Your task to perform on an android device: turn pop-ups on in chrome Image 0: 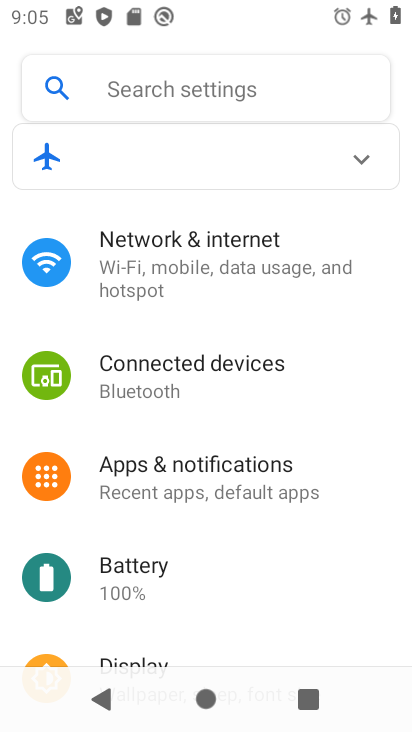
Step 0: press home button
Your task to perform on an android device: turn pop-ups on in chrome Image 1: 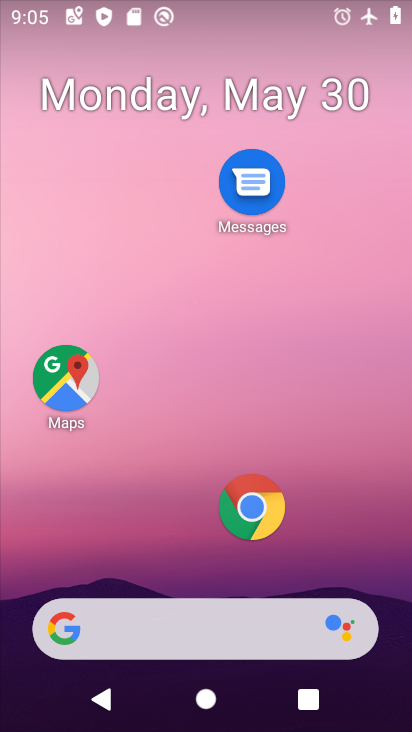
Step 1: click (246, 514)
Your task to perform on an android device: turn pop-ups on in chrome Image 2: 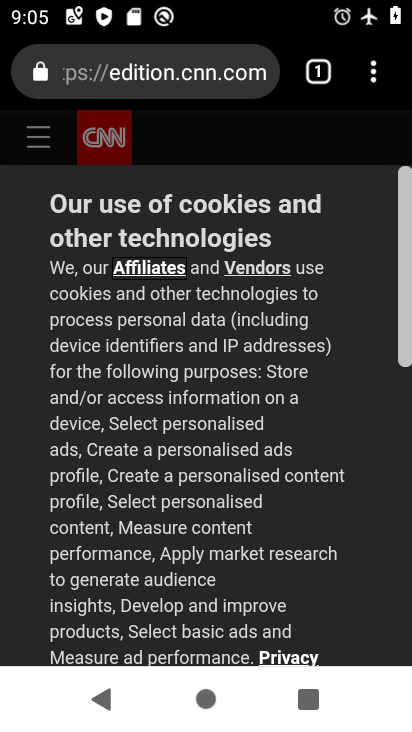
Step 2: click (373, 83)
Your task to perform on an android device: turn pop-ups on in chrome Image 3: 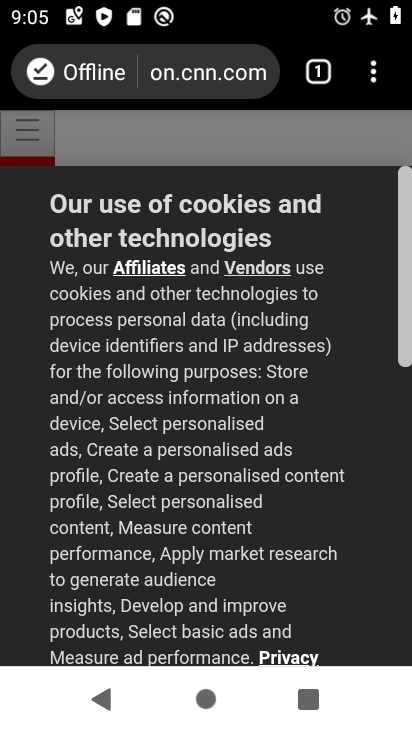
Step 3: click (375, 71)
Your task to perform on an android device: turn pop-ups on in chrome Image 4: 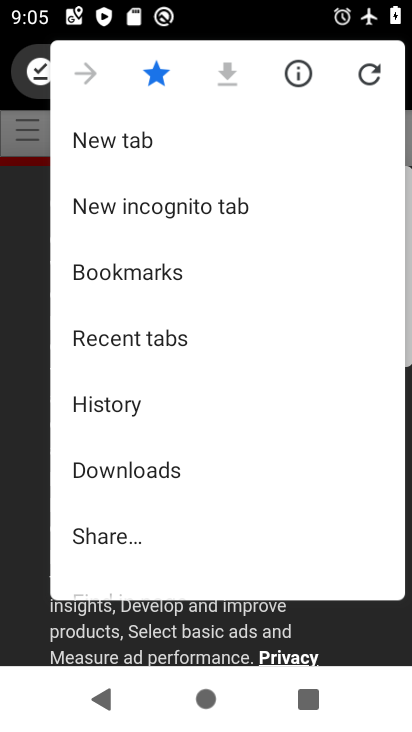
Step 4: drag from (143, 465) to (133, 184)
Your task to perform on an android device: turn pop-ups on in chrome Image 5: 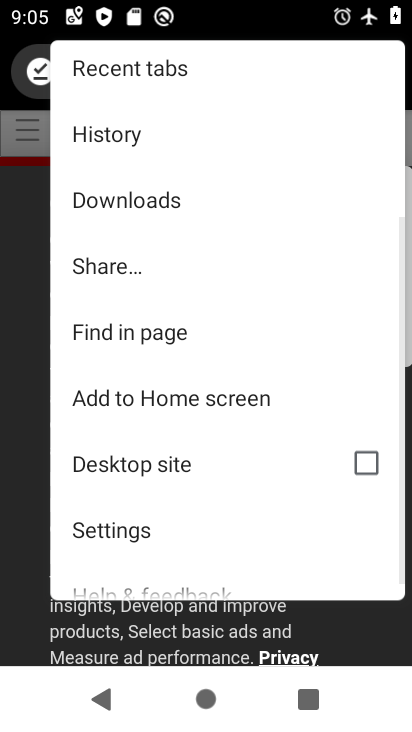
Step 5: click (117, 524)
Your task to perform on an android device: turn pop-ups on in chrome Image 6: 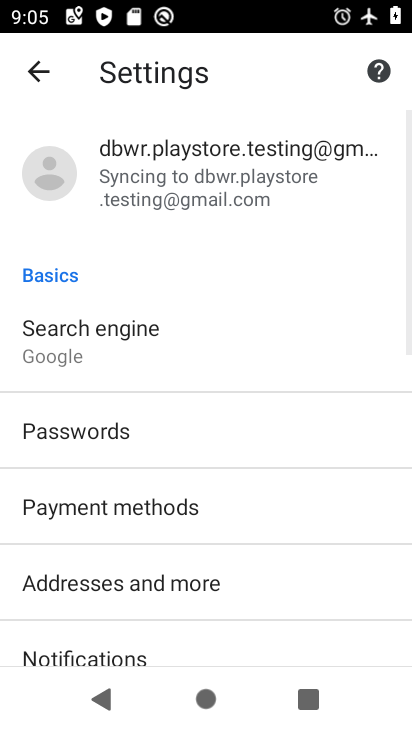
Step 6: drag from (169, 560) to (178, 261)
Your task to perform on an android device: turn pop-ups on in chrome Image 7: 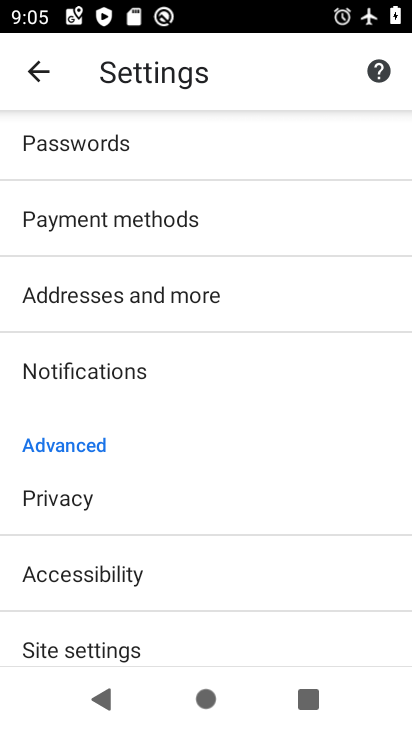
Step 7: drag from (115, 567) to (125, 270)
Your task to perform on an android device: turn pop-ups on in chrome Image 8: 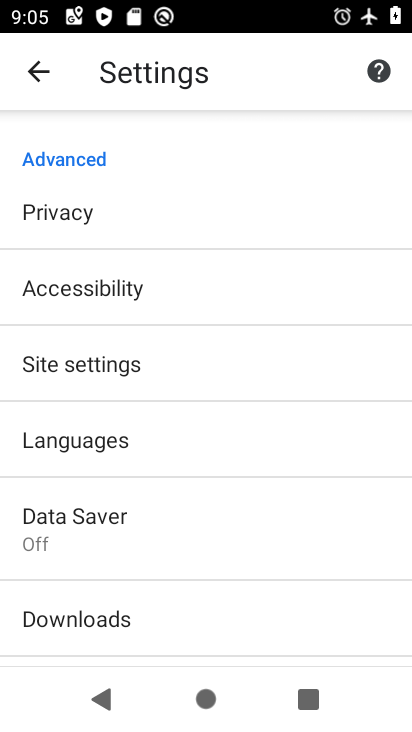
Step 8: click (111, 351)
Your task to perform on an android device: turn pop-ups on in chrome Image 9: 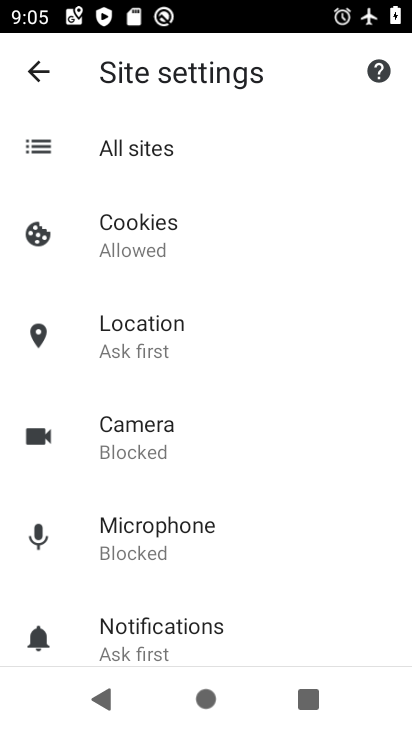
Step 9: drag from (164, 623) to (206, 274)
Your task to perform on an android device: turn pop-ups on in chrome Image 10: 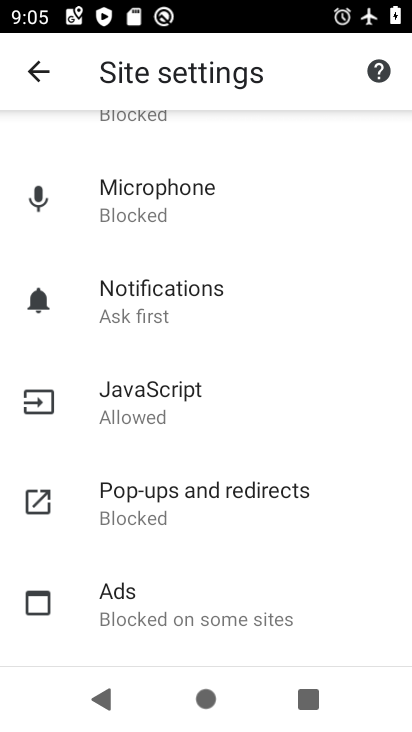
Step 10: click (166, 503)
Your task to perform on an android device: turn pop-ups on in chrome Image 11: 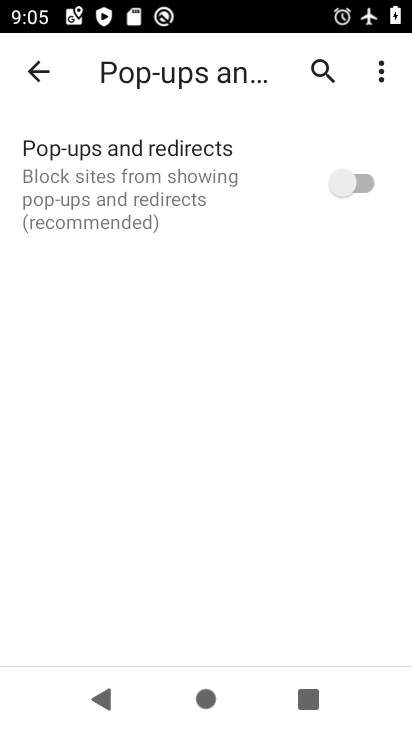
Step 11: click (366, 181)
Your task to perform on an android device: turn pop-ups on in chrome Image 12: 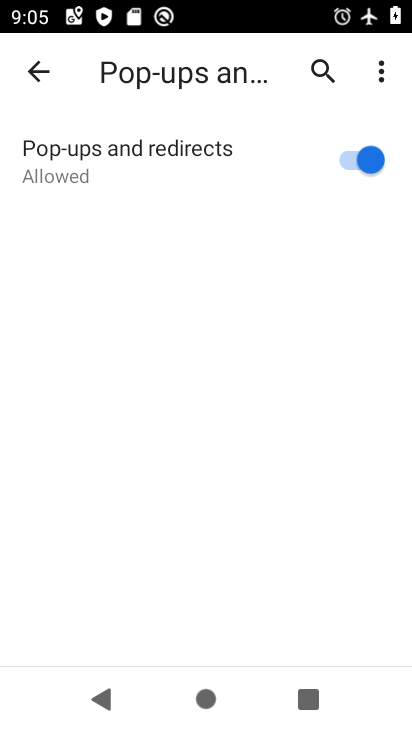
Step 12: task complete